Your task to perform on an android device: turn on wifi Image 0: 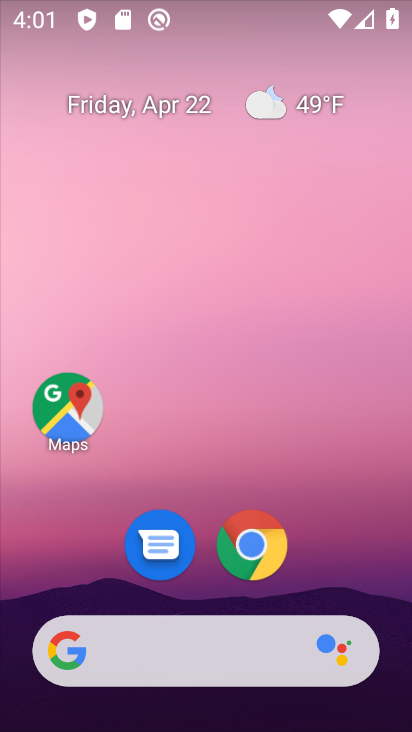
Step 0: drag from (358, 550) to (357, 104)
Your task to perform on an android device: turn on wifi Image 1: 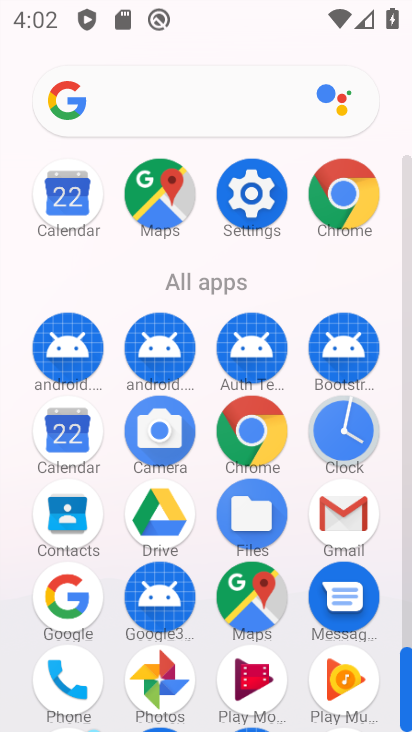
Step 1: click (246, 193)
Your task to perform on an android device: turn on wifi Image 2: 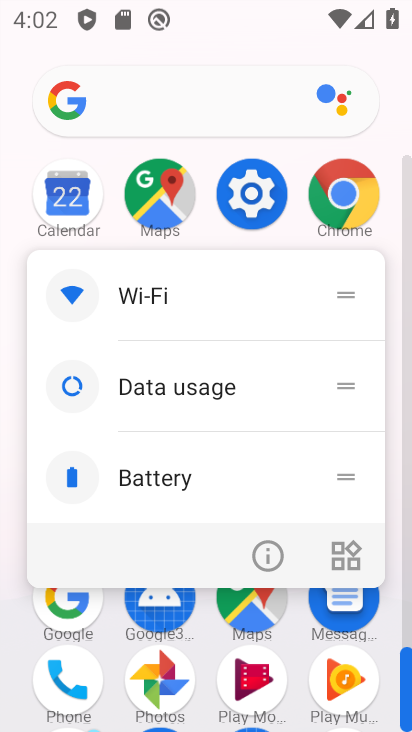
Step 2: click (246, 193)
Your task to perform on an android device: turn on wifi Image 3: 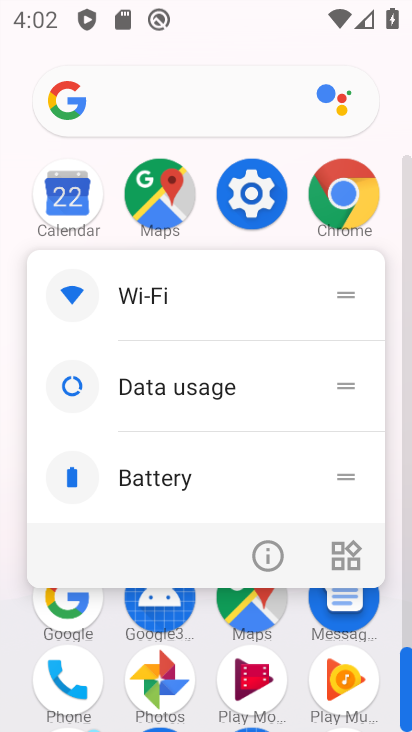
Step 3: click (246, 191)
Your task to perform on an android device: turn on wifi Image 4: 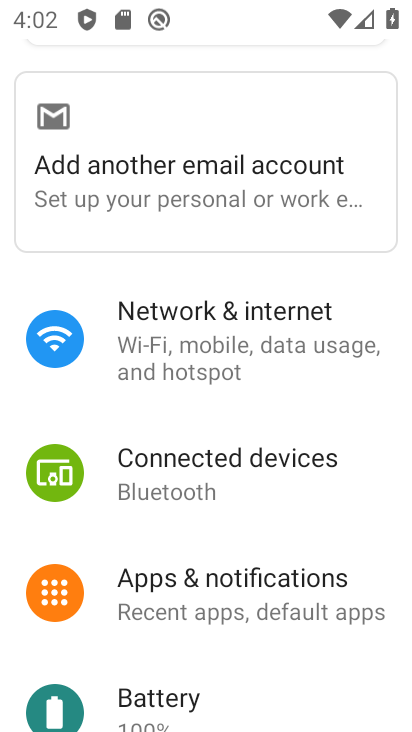
Step 4: click (165, 334)
Your task to perform on an android device: turn on wifi Image 5: 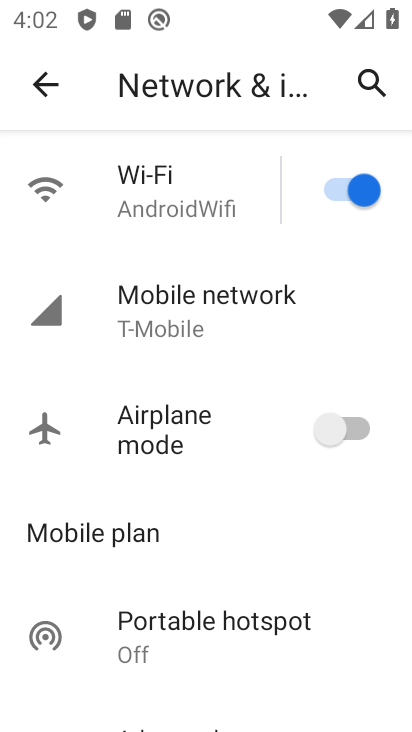
Step 5: task complete